Your task to perform on an android device: Show me the alarms in the clock app Image 0: 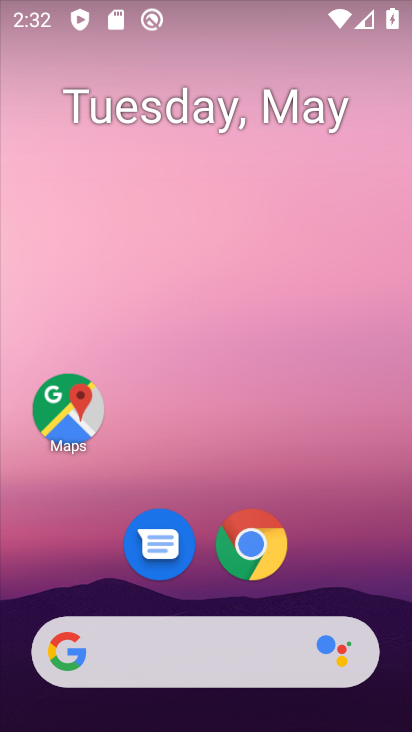
Step 0: drag from (338, 565) to (361, 95)
Your task to perform on an android device: Show me the alarms in the clock app Image 1: 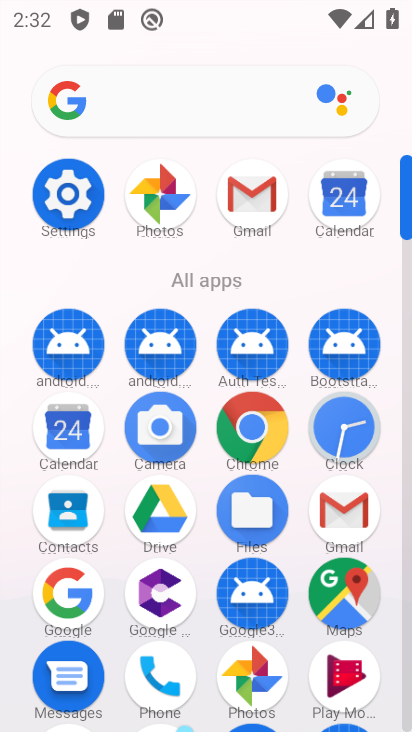
Step 1: click (346, 427)
Your task to perform on an android device: Show me the alarms in the clock app Image 2: 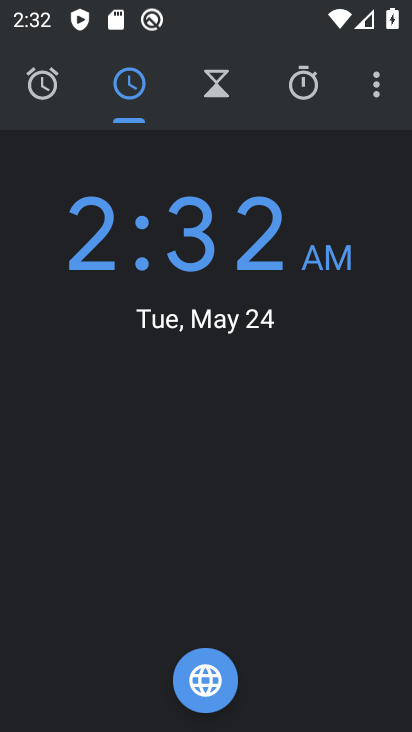
Step 2: click (42, 90)
Your task to perform on an android device: Show me the alarms in the clock app Image 3: 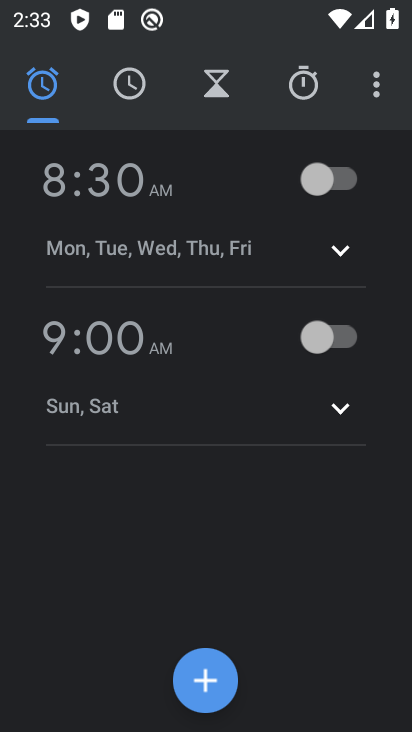
Step 3: task complete